Your task to perform on an android device: What's the weather going to be this weekend? Image 0: 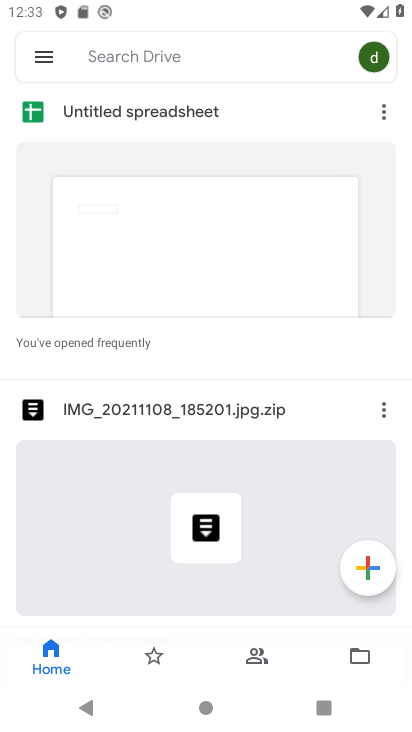
Step 0: press home button
Your task to perform on an android device: What's the weather going to be this weekend? Image 1: 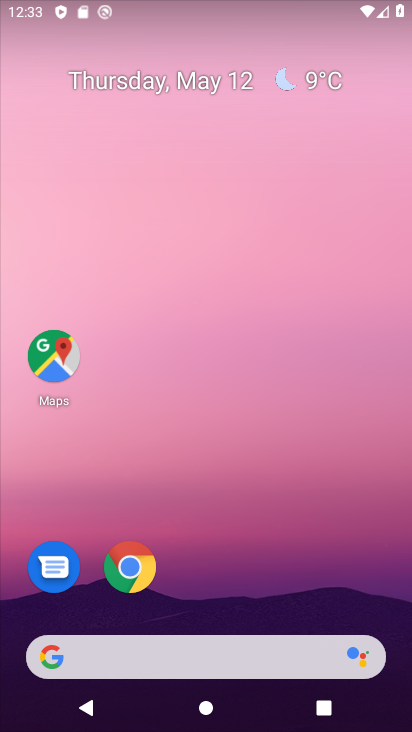
Step 1: click (307, 76)
Your task to perform on an android device: What's the weather going to be this weekend? Image 2: 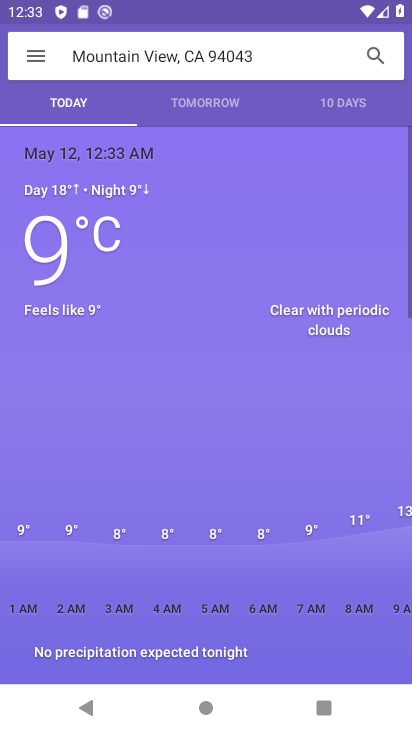
Step 2: click (313, 114)
Your task to perform on an android device: What's the weather going to be this weekend? Image 3: 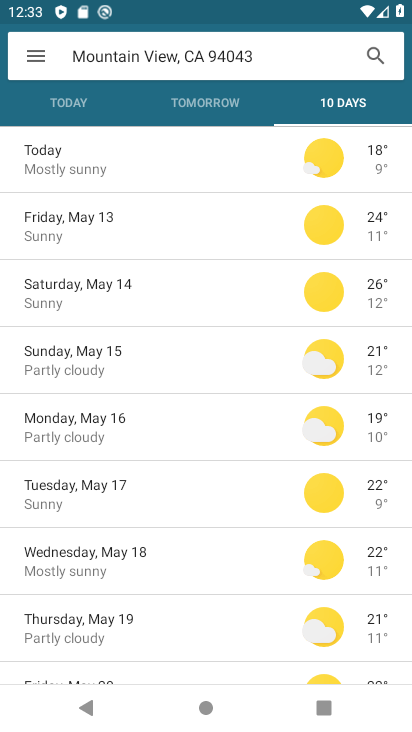
Step 3: task complete